Your task to perform on an android device: Open calendar and show me the second week of next month Image 0: 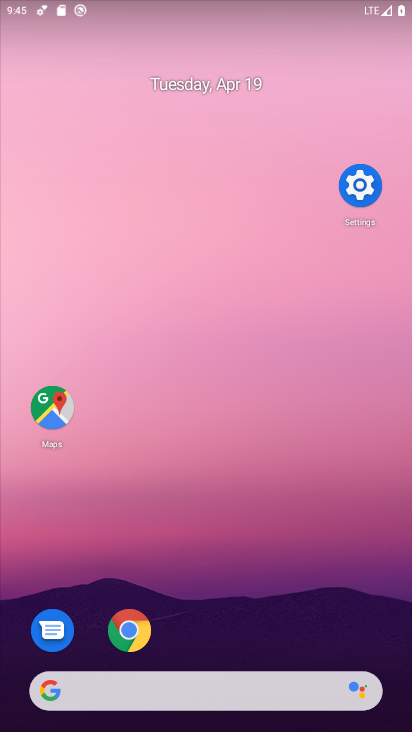
Step 0: drag from (241, 689) to (276, 197)
Your task to perform on an android device: Open calendar and show me the second week of next month Image 1: 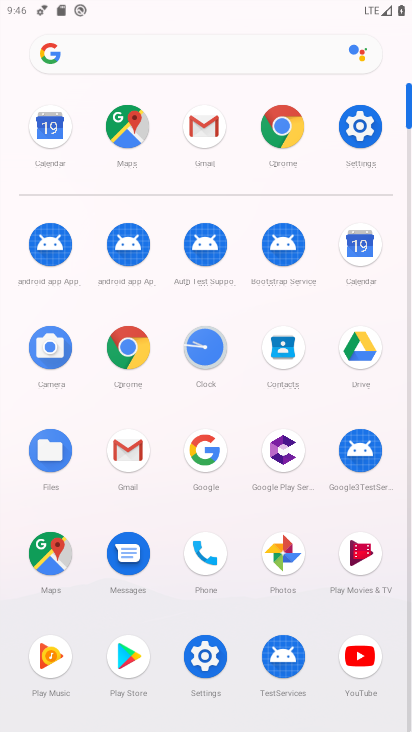
Step 1: click (373, 252)
Your task to perform on an android device: Open calendar and show me the second week of next month Image 2: 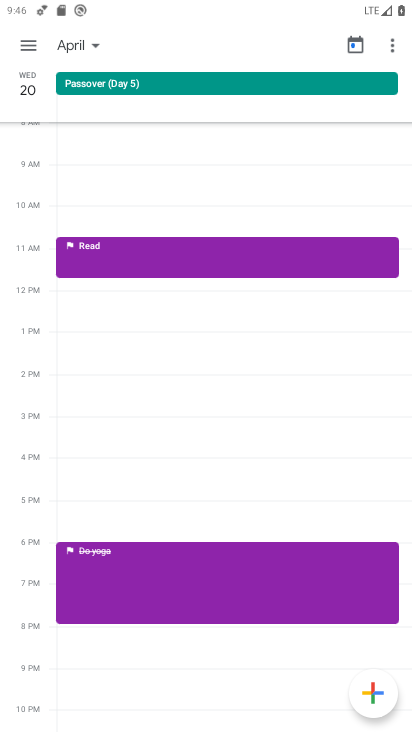
Step 2: click (91, 49)
Your task to perform on an android device: Open calendar and show me the second week of next month Image 3: 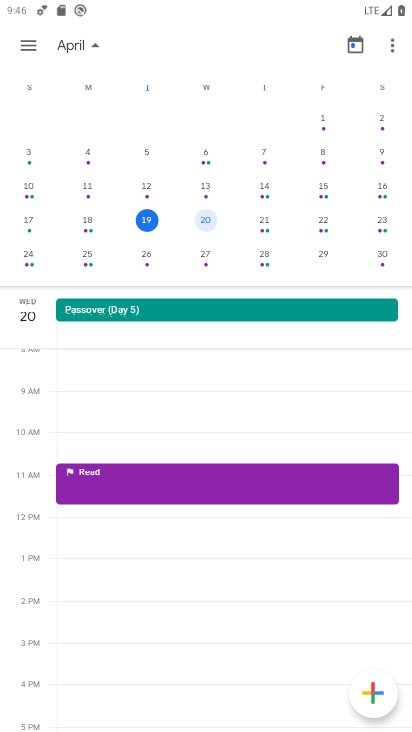
Step 3: drag from (350, 220) to (0, 210)
Your task to perform on an android device: Open calendar and show me the second week of next month Image 4: 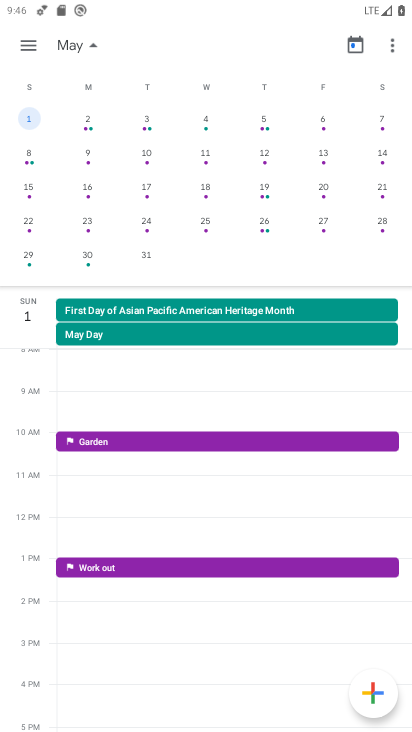
Step 4: click (31, 165)
Your task to perform on an android device: Open calendar and show me the second week of next month Image 5: 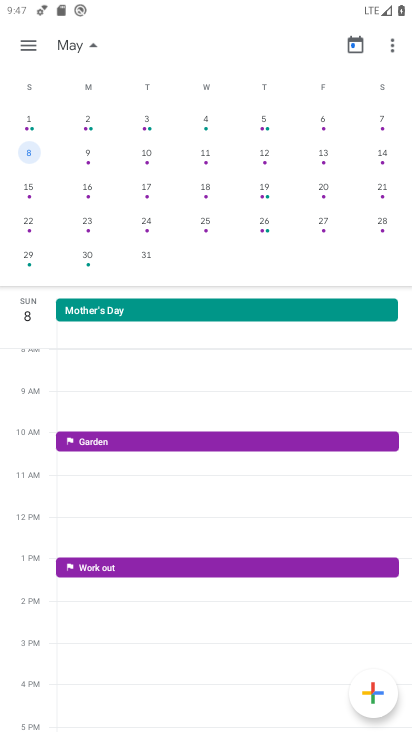
Step 5: task complete